Your task to perform on an android device: Open calendar and show me the fourth week of next month Image 0: 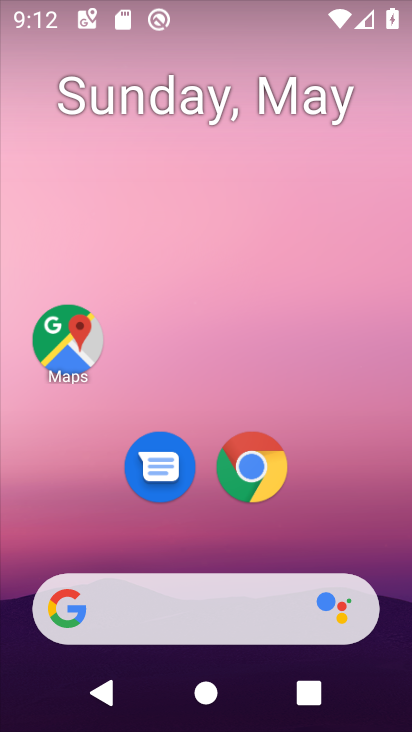
Step 0: drag from (351, 533) to (305, 88)
Your task to perform on an android device: Open calendar and show me the fourth week of next month Image 1: 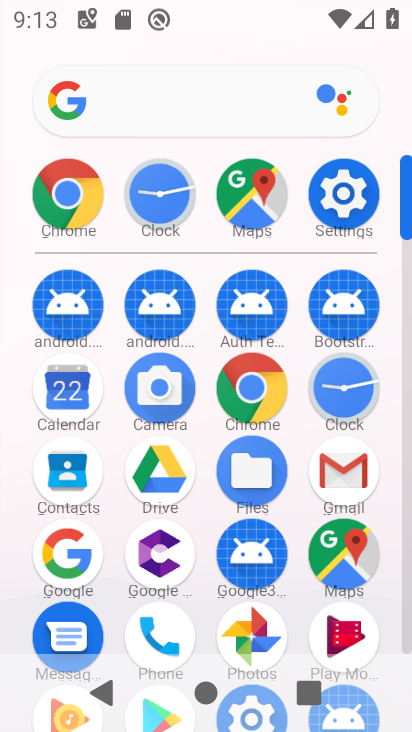
Step 1: click (57, 371)
Your task to perform on an android device: Open calendar and show me the fourth week of next month Image 2: 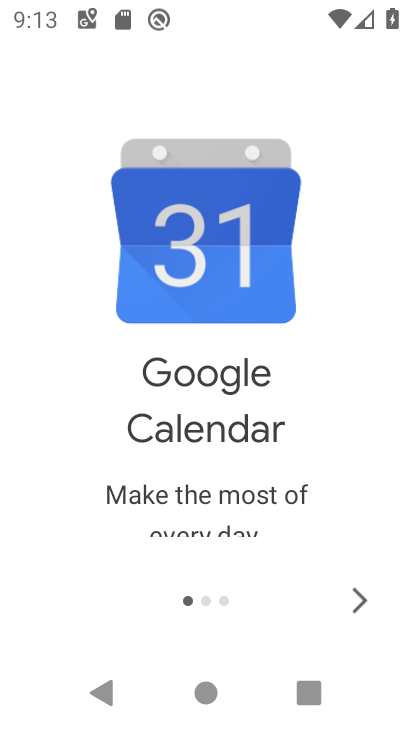
Step 2: click (363, 593)
Your task to perform on an android device: Open calendar and show me the fourth week of next month Image 3: 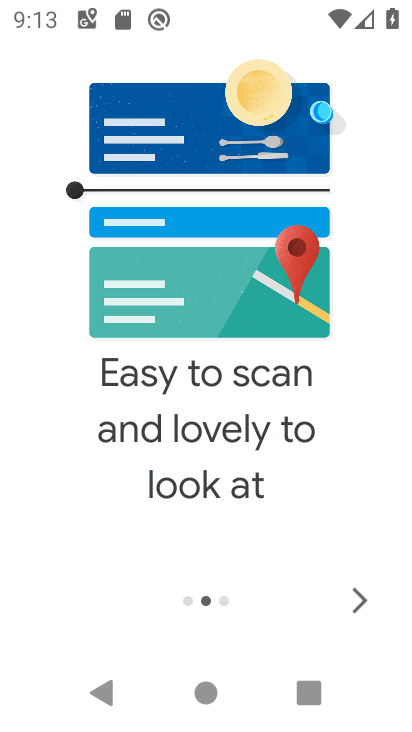
Step 3: click (363, 593)
Your task to perform on an android device: Open calendar and show me the fourth week of next month Image 4: 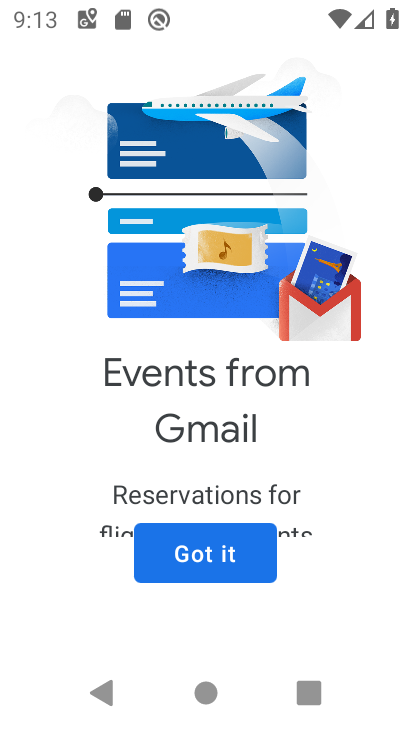
Step 4: click (230, 555)
Your task to perform on an android device: Open calendar and show me the fourth week of next month Image 5: 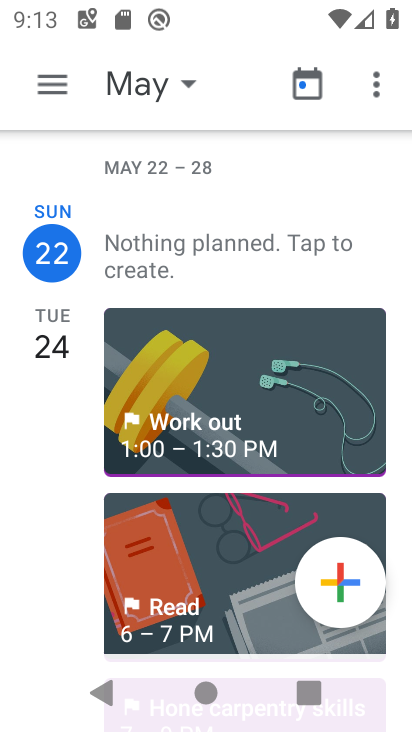
Step 5: click (129, 75)
Your task to perform on an android device: Open calendar and show me the fourth week of next month Image 6: 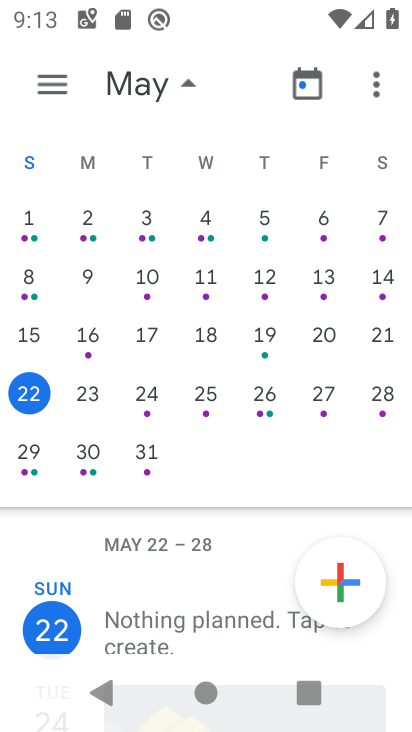
Step 6: drag from (323, 331) to (4, 297)
Your task to perform on an android device: Open calendar and show me the fourth week of next month Image 7: 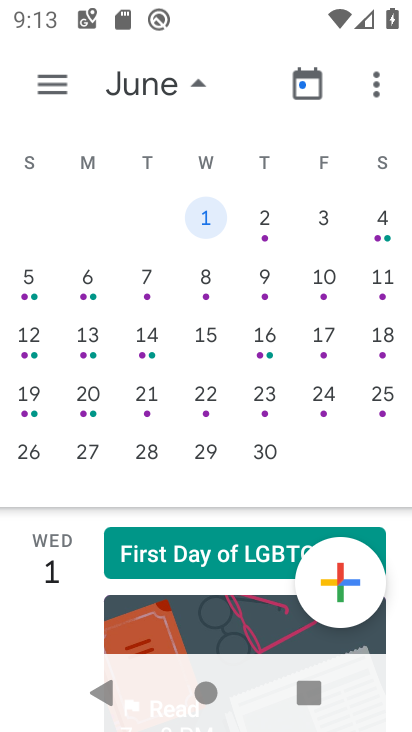
Step 7: click (29, 387)
Your task to perform on an android device: Open calendar and show me the fourth week of next month Image 8: 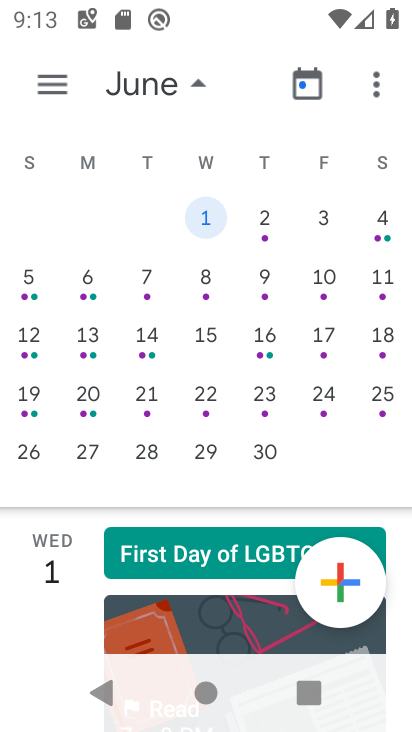
Step 8: click (21, 399)
Your task to perform on an android device: Open calendar and show me the fourth week of next month Image 9: 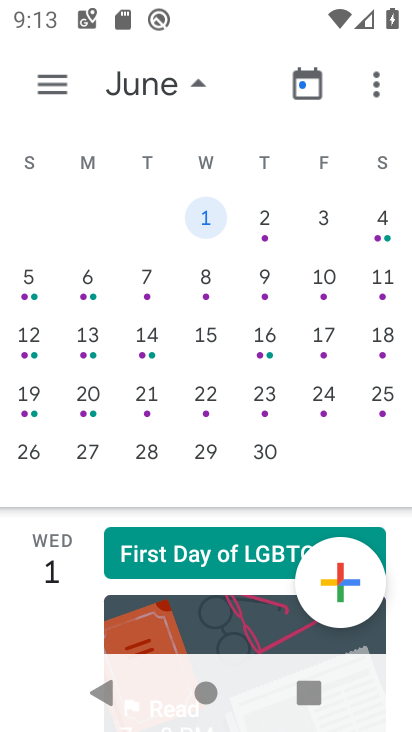
Step 9: click (29, 399)
Your task to perform on an android device: Open calendar and show me the fourth week of next month Image 10: 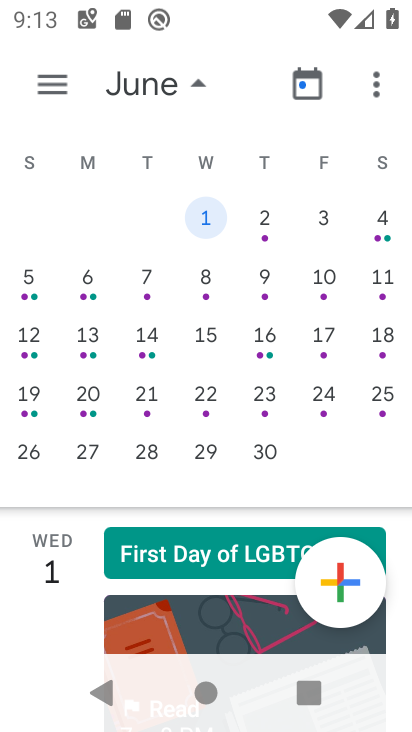
Step 10: click (36, 399)
Your task to perform on an android device: Open calendar and show me the fourth week of next month Image 11: 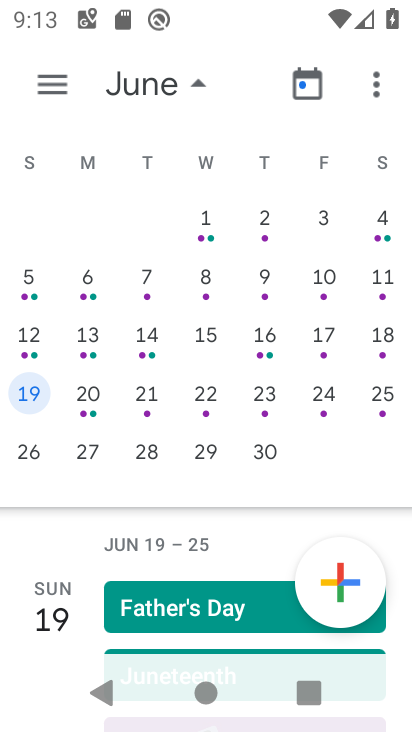
Step 11: task complete